Your task to perform on an android device: turn notification dots off Image 0: 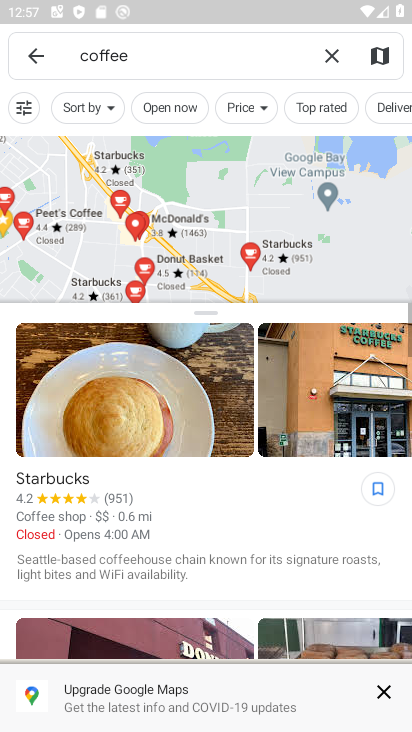
Step 0: press home button
Your task to perform on an android device: turn notification dots off Image 1: 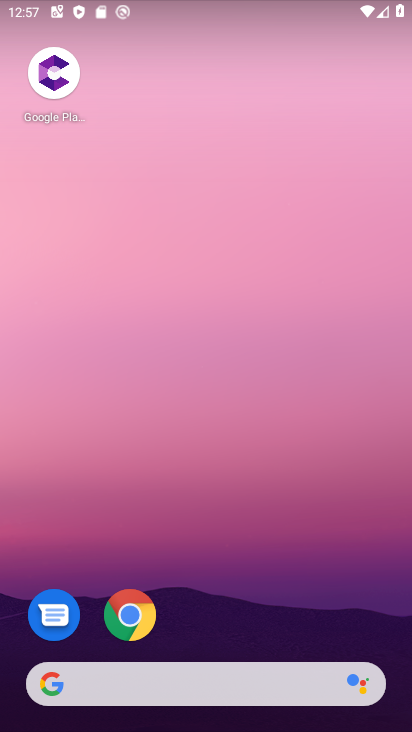
Step 1: drag from (212, 514) to (214, 79)
Your task to perform on an android device: turn notification dots off Image 2: 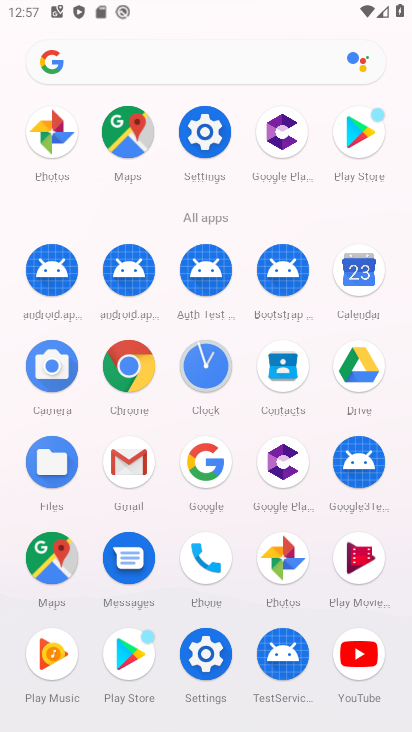
Step 2: click (199, 137)
Your task to perform on an android device: turn notification dots off Image 3: 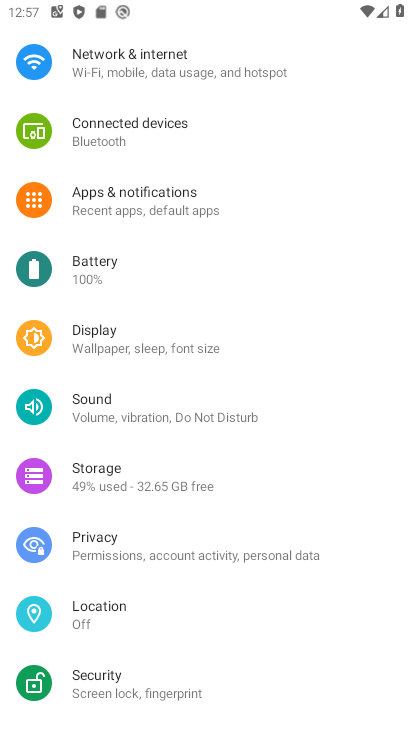
Step 3: click (131, 200)
Your task to perform on an android device: turn notification dots off Image 4: 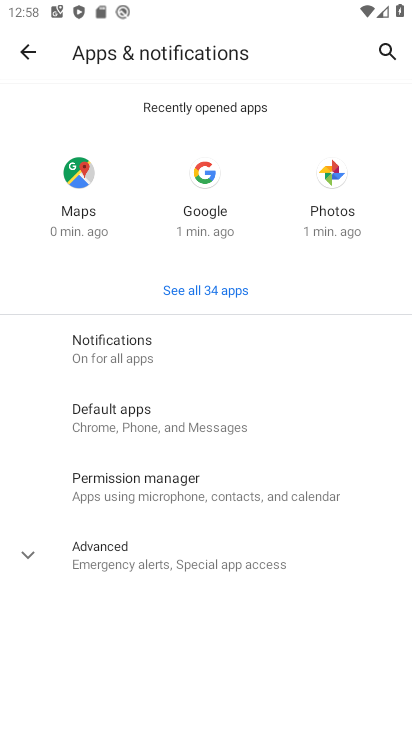
Step 4: click (118, 347)
Your task to perform on an android device: turn notification dots off Image 5: 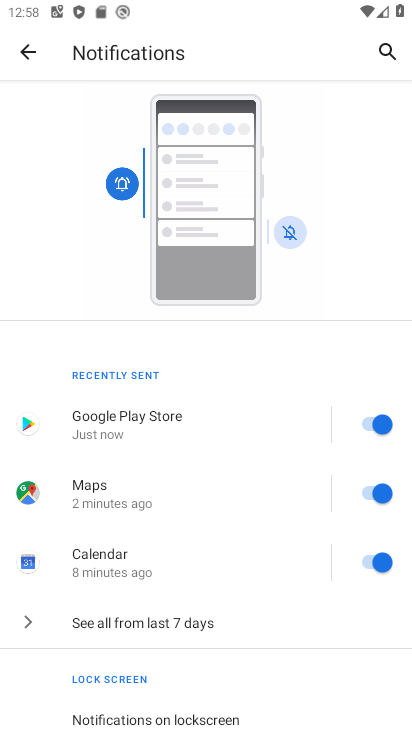
Step 5: drag from (198, 691) to (202, 299)
Your task to perform on an android device: turn notification dots off Image 6: 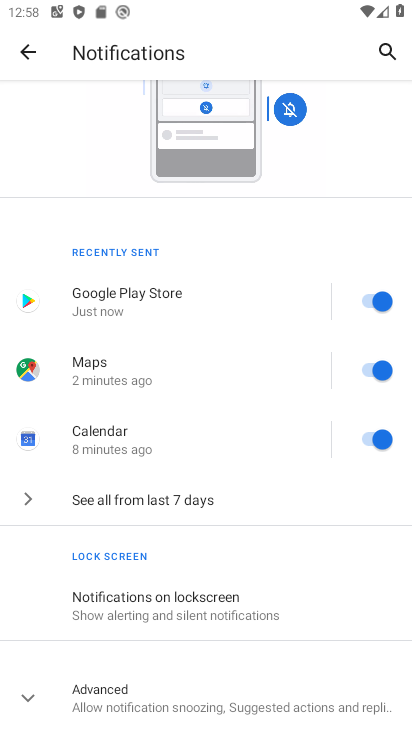
Step 6: click (171, 704)
Your task to perform on an android device: turn notification dots off Image 7: 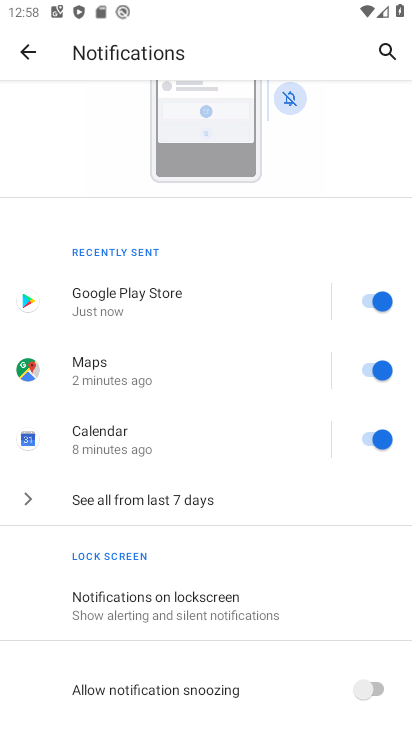
Step 7: drag from (179, 623) to (193, 449)
Your task to perform on an android device: turn notification dots off Image 8: 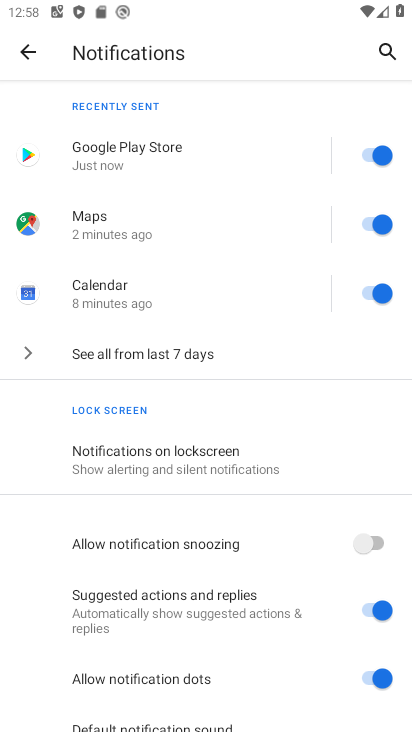
Step 8: click (372, 673)
Your task to perform on an android device: turn notification dots off Image 9: 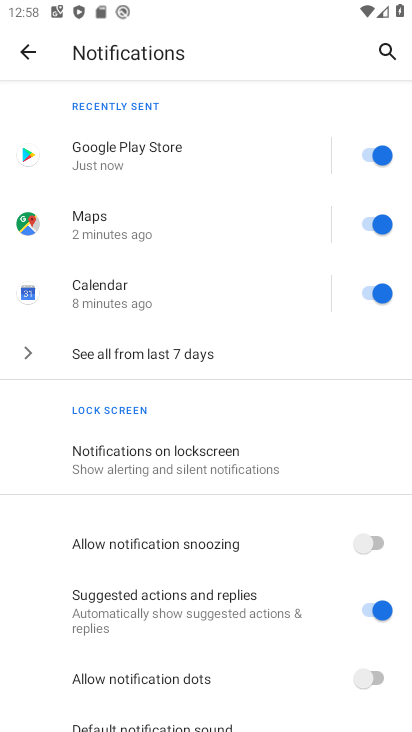
Step 9: task complete